Your task to perform on an android device: allow cookies in the chrome app Image 0: 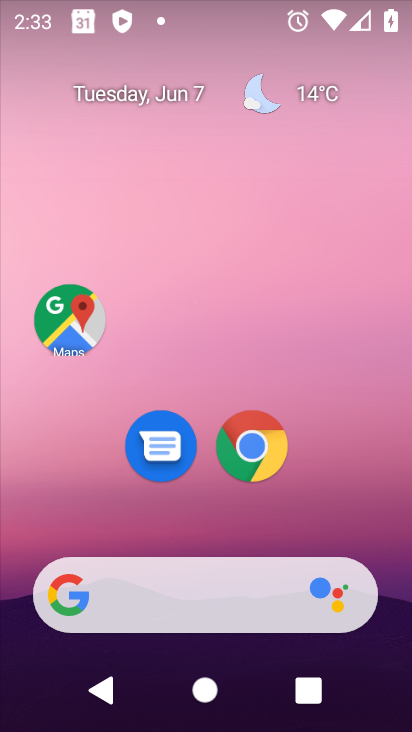
Step 0: click (253, 446)
Your task to perform on an android device: allow cookies in the chrome app Image 1: 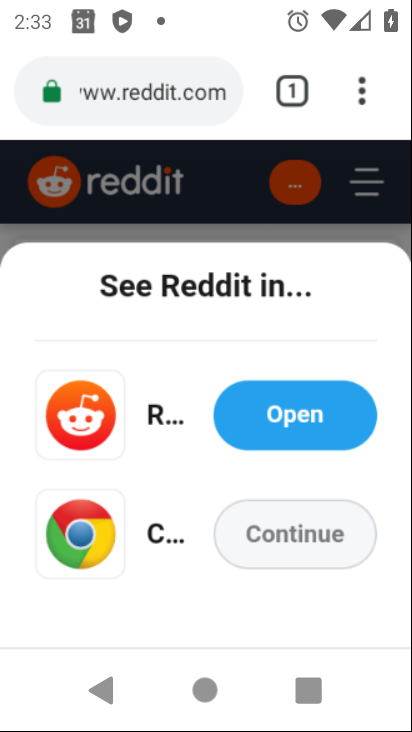
Step 1: click (360, 96)
Your task to perform on an android device: allow cookies in the chrome app Image 2: 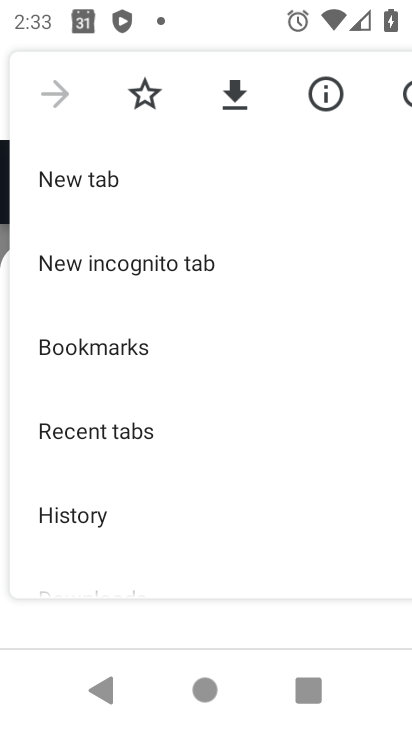
Step 2: drag from (228, 563) to (272, 119)
Your task to perform on an android device: allow cookies in the chrome app Image 3: 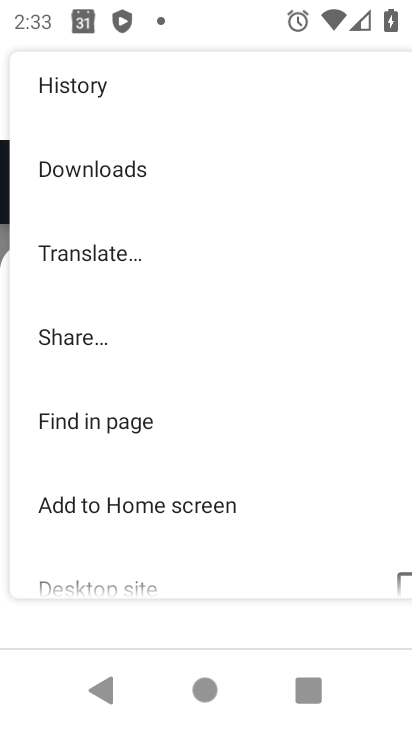
Step 3: drag from (251, 539) to (231, 164)
Your task to perform on an android device: allow cookies in the chrome app Image 4: 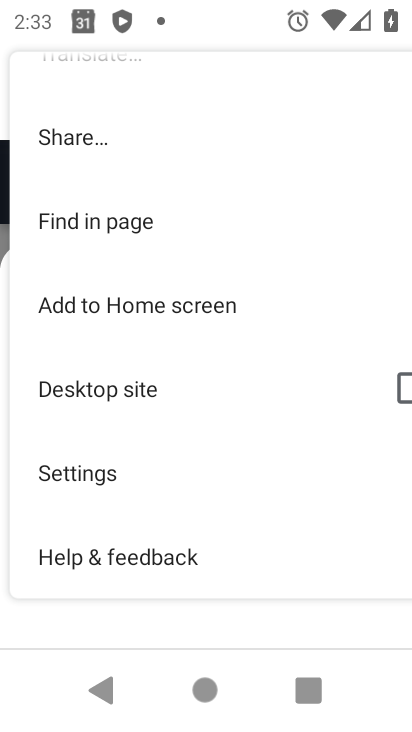
Step 4: click (105, 459)
Your task to perform on an android device: allow cookies in the chrome app Image 5: 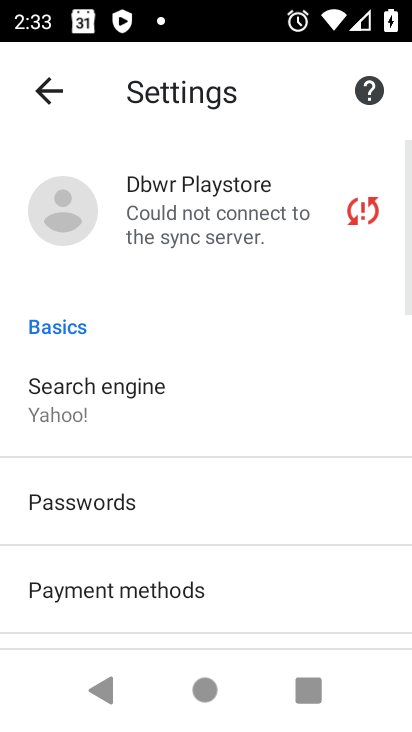
Step 5: drag from (264, 575) to (227, 131)
Your task to perform on an android device: allow cookies in the chrome app Image 6: 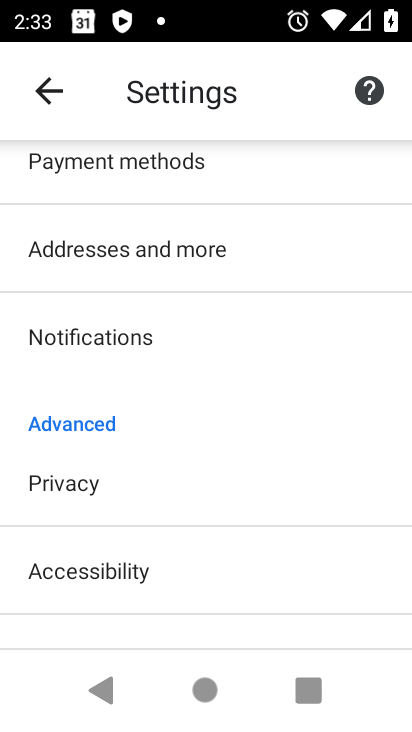
Step 6: drag from (240, 592) to (293, 171)
Your task to perform on an android device: allow cookies in the chrome app Image 7: 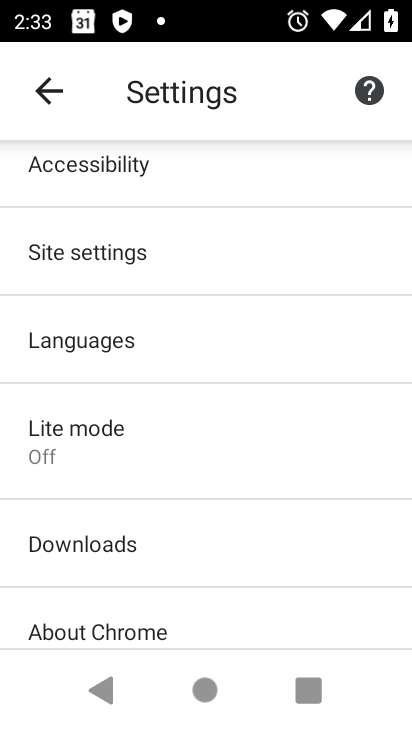
Step 7: click (87, 263)
Your task to perform on an android device: allow cookies in the chrome app Image 8: 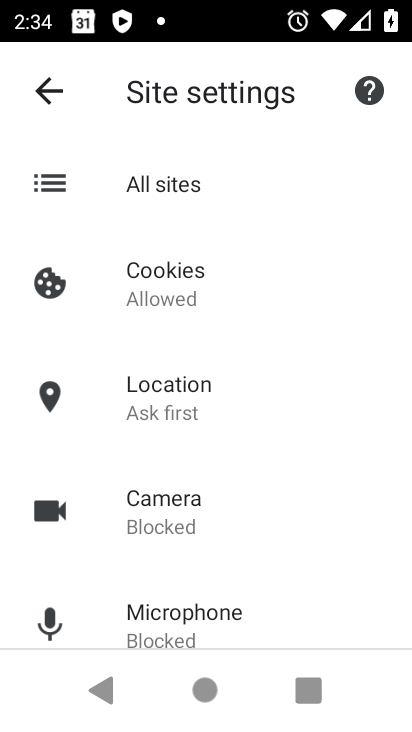
Step 8: click (159, 273)
Your task to perform on an android device: allow cookies in the chrome app Image 9: 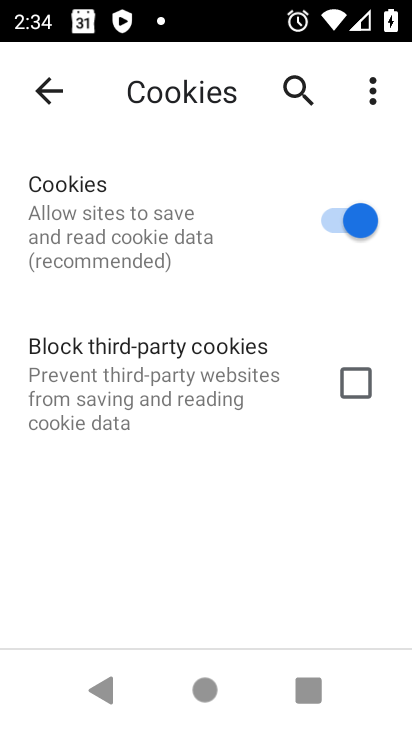
Step 9: task complete